Your task to perform on an android device: add a contact in the contacts app Image 0: 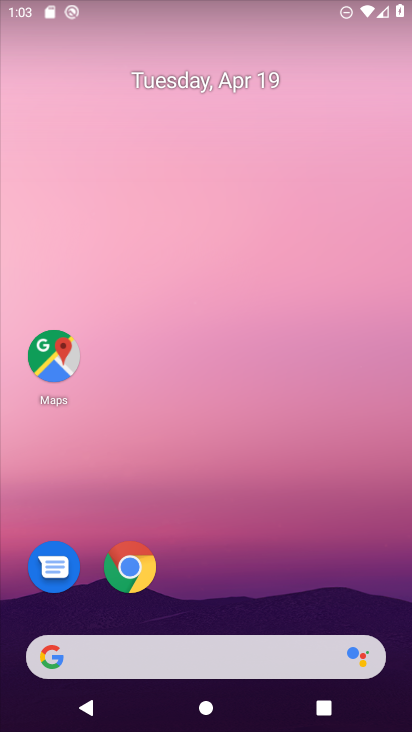
Step 0: drag from (277, 475) to (278, 87)
Your task to perform on an android device: add a contact in the contacts app Image 1: 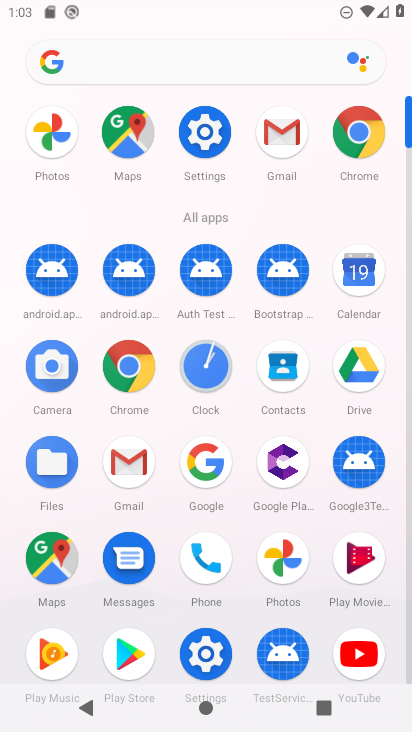
Step 1: click (277, 369)
Your task to perform on an android device: add a contact in the contacts app Image 2: 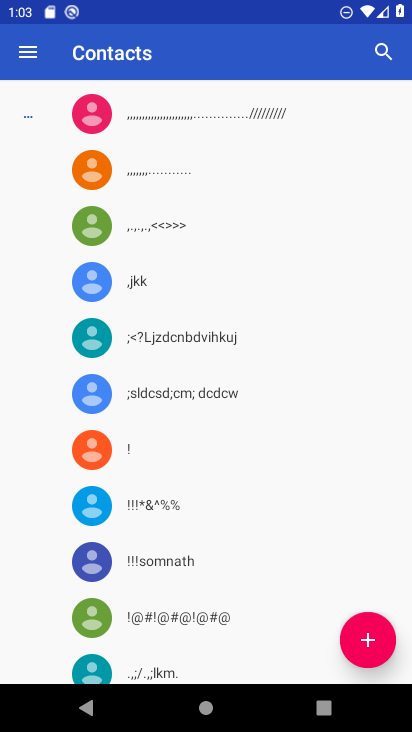
Step 2: click (372, 638)
Your task to perform on an android device: add a contact in the contacts app Image 3: 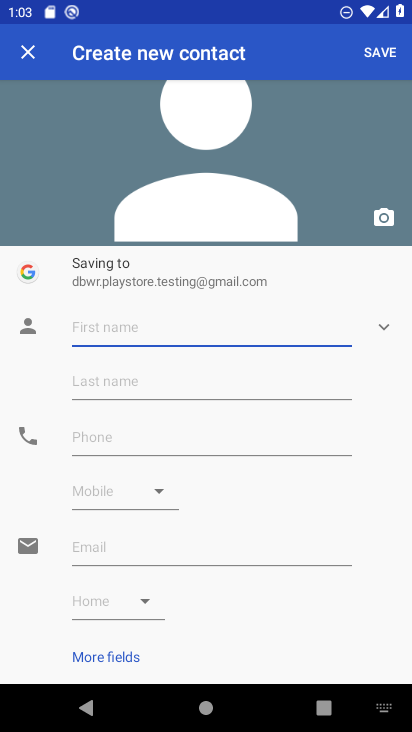
Step 3: type "zv"
Your task to perform on an android device: add a contact in the contacts app Image 4: 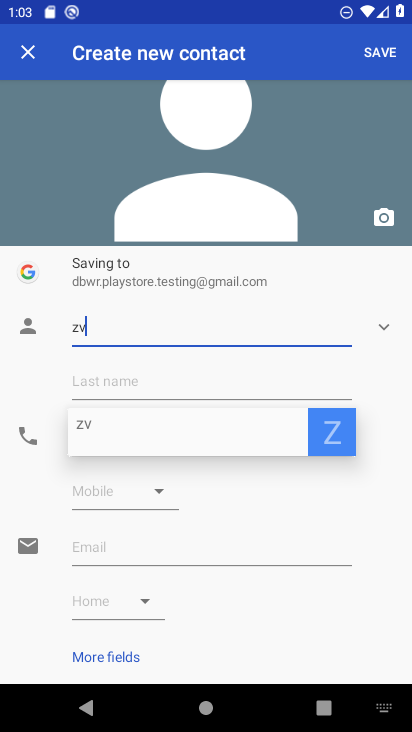
Step 4: type "/"
Your task to perform on an android device: add a contact in the contacts app Image 5: 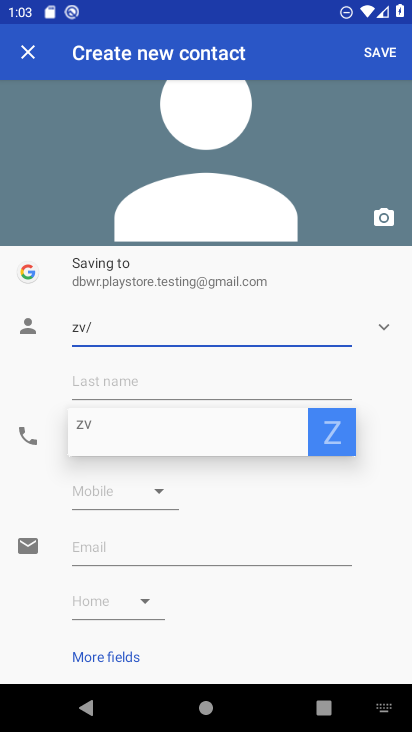
Step 5: click (375, 53)
Your task to perform on an android device: add a contact in the contacts app Image 6: 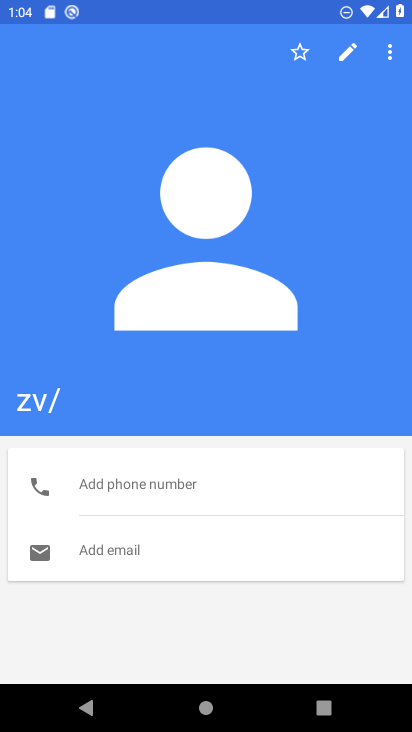
Step 6: task complete